Your task to perform on an android device: toggle data saver in the chrome app Image 0: 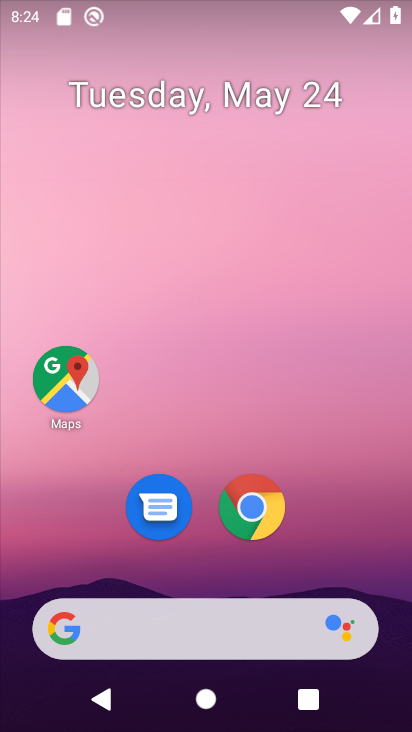
Step 0: click (240, 12)
Your task to perform on an android device: toggle data saver in the chrome app Image 1: 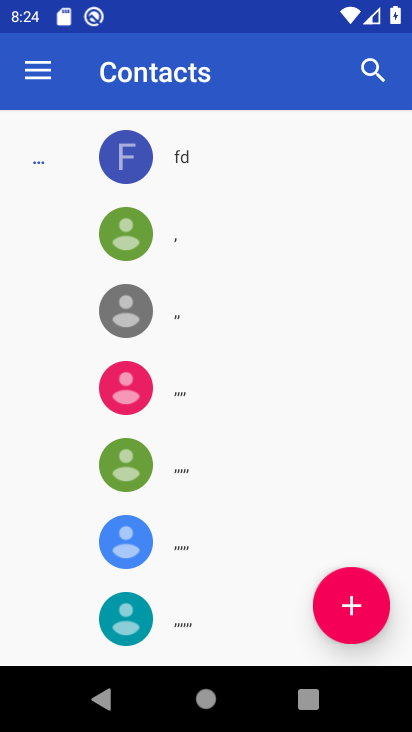
Step 1: drag from (226, 613) to (276, 131)
Your task to perform on an android device: toggle data saver in the chrome app Image 2: 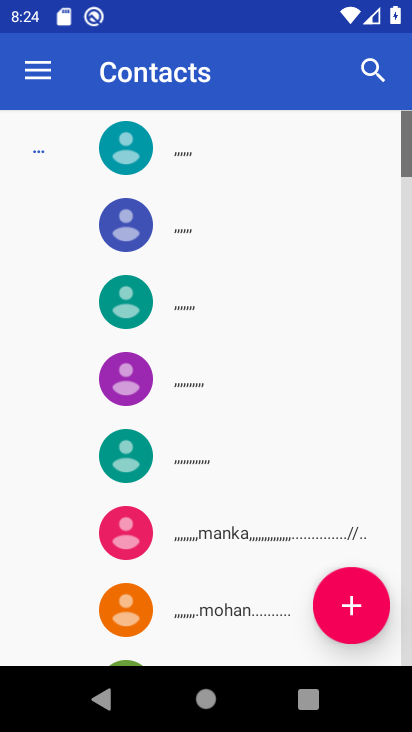
Step 2: drag from (238, 283) to (378, 663)
Your task to perform on an android device: toggle data saver in the chrome app Image 3: 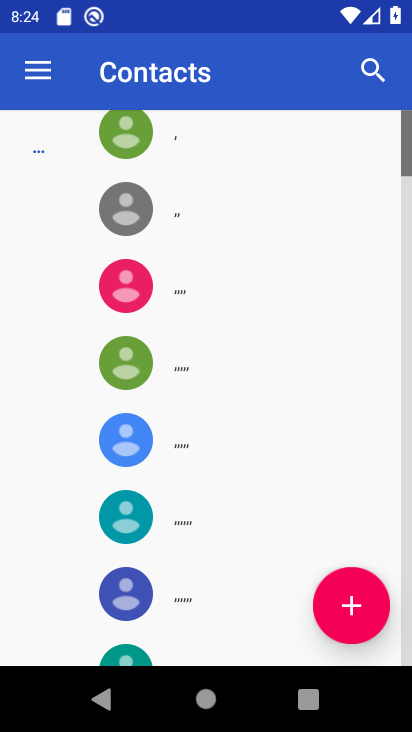
Step 3: press home button
Your task to perform on an android device: toggle data saver in the chrome app Image 4: 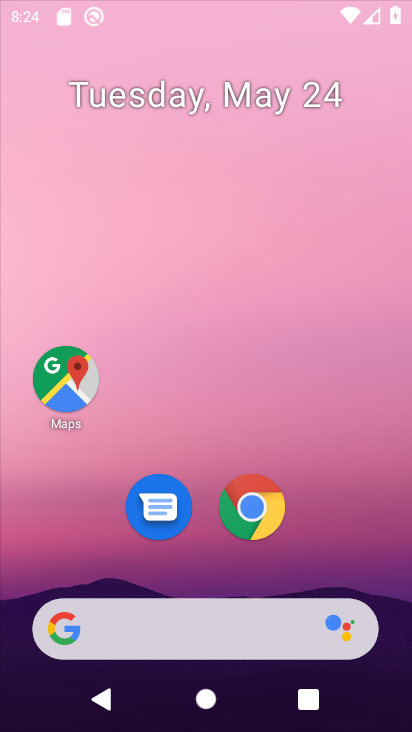
Step 4: drag from (162, 589) to (187, 202)
Your task to perform on an android device: toggle data saver in the chrome app Image 5: 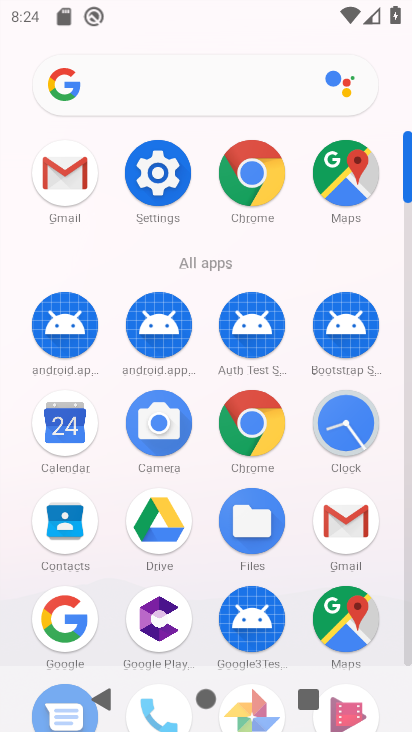
Step 5: click (252, 422)
Your task to perform on an android device: toggle data saver in the chrome app Image 6: 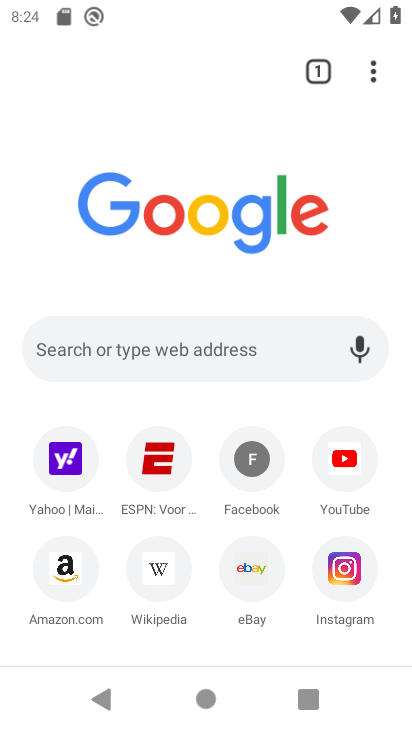
Step 6: drag from (188, 625) to (195, 248)
Your task to perform on an android device: toggle data saver in the chrome app Image 7: 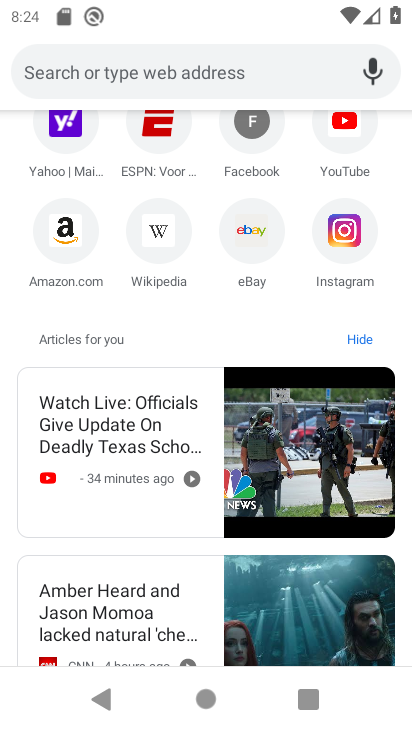
Step 7: drag from (209, 188) to (272, 580)
Your task to perform on an android device: toggle data saver in the chrome app Image 8: 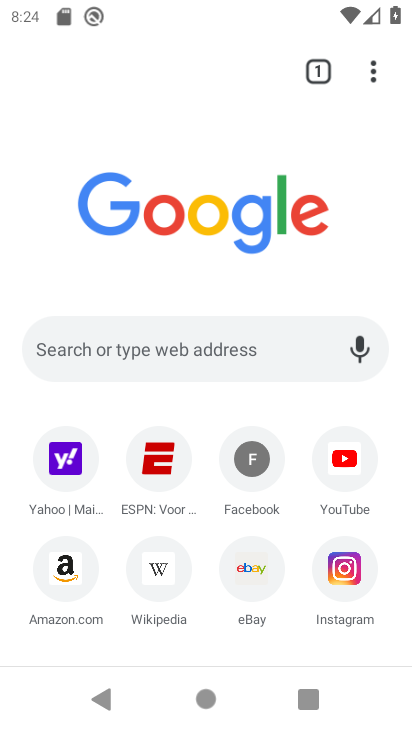
Step 8: drag from (202, 518) to (227, 282)
Your task to perform on an android device: toggle data saver in the chrome app Image 9: 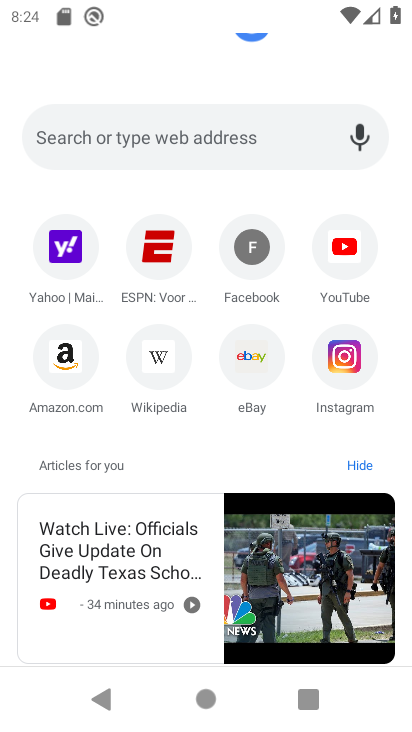
Step 9: drag from (199, 221) to (206, 505)
Your task to perform on an android device: toggle data saver in the chrome app Image 10: 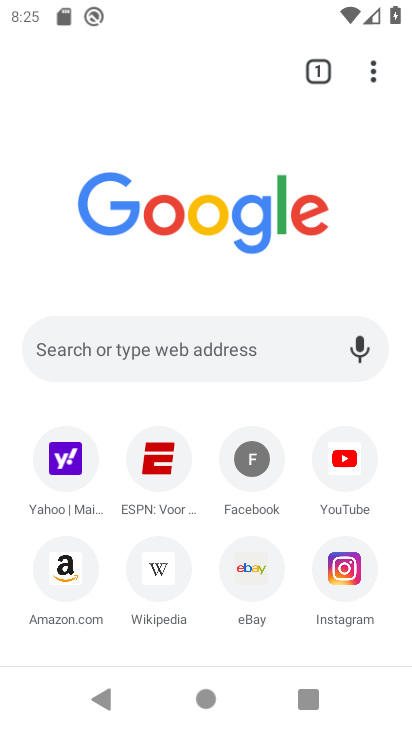
Step 10: drag from (208, 628) to (218, 185)
Your task to perform on an android device: toggle data saver in the chrome app Image 11: 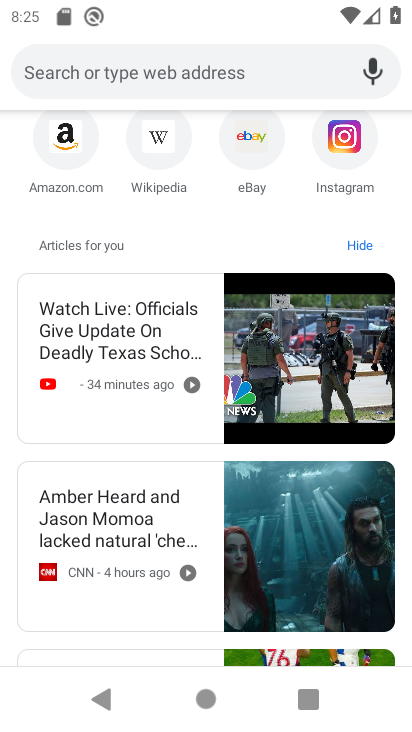
Step 11: drag from (289, 173) to (342, 653)
Your task to perform on an android device: toggle data saver in the chrome app Image 12: 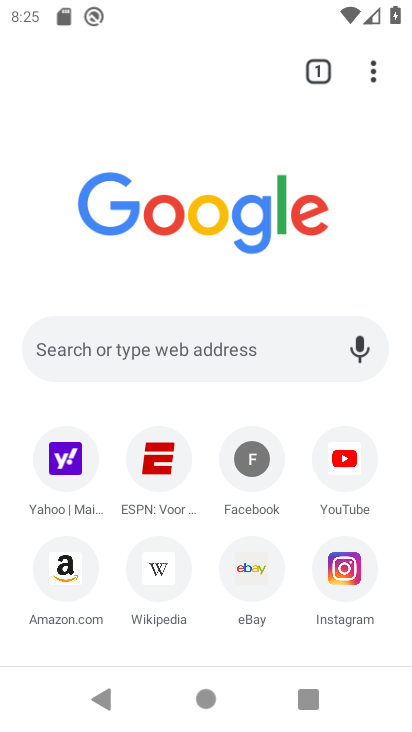
Step 12: click (373, 66)
Your task to perform on an android device: toggle data saver in the chrome app Image 13: 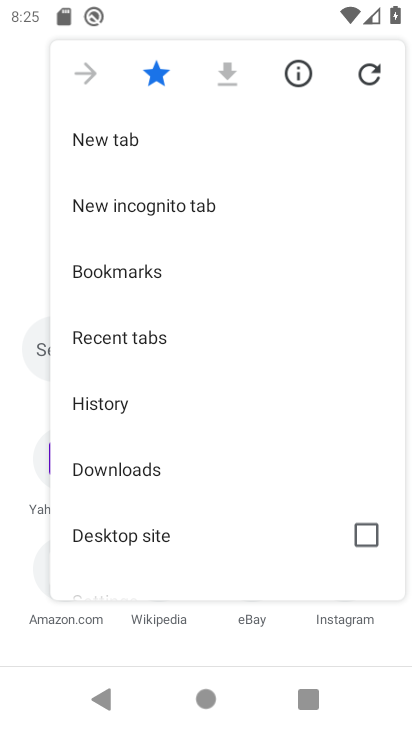
Step 13: drag from (147, 523) to (240, 49)
Your task to perform on an android device: toggle data saver in the chrome app Image 14: 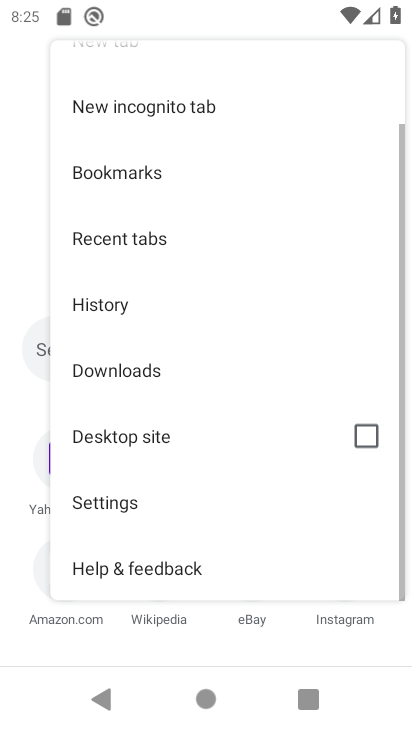
Step 14: click (128, 504)
Your task to perform on an android device: toggle data saver in the chrome app Image 15: 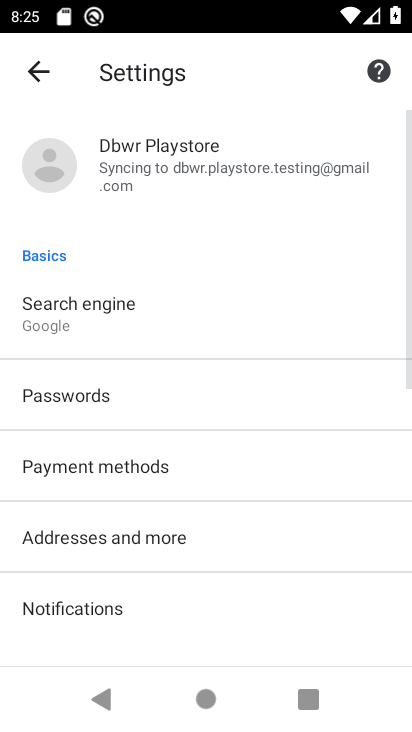
Step 15: drag from (200, 537) to (218, 200)
Your task to perform on an android device: toggle data saver in the chrome app Image 16: 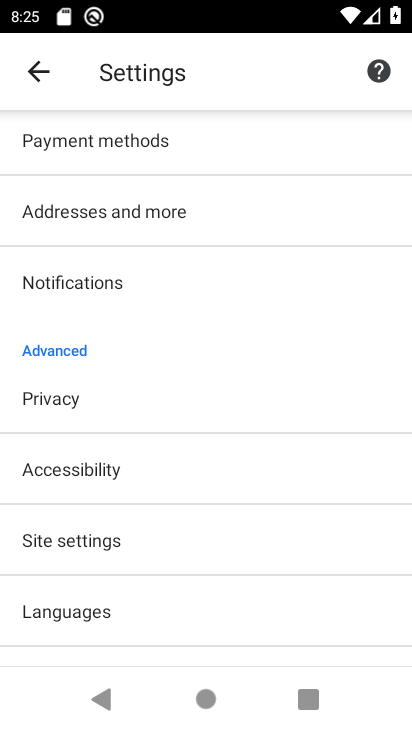
Step 16: drag from (148, 607) to (240, 187)
Your task to perform on an android device: toggle data saver in the chrome app Image 17: 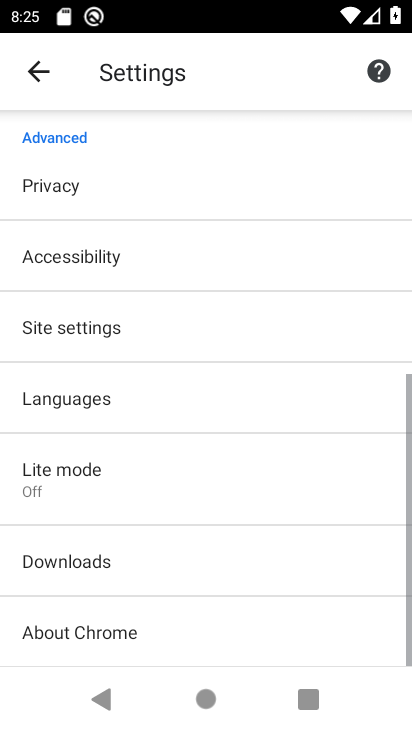
Step 17: click (120, 493)
Your task to perform on an android device: toggle data saver in the chrome app Image 18: 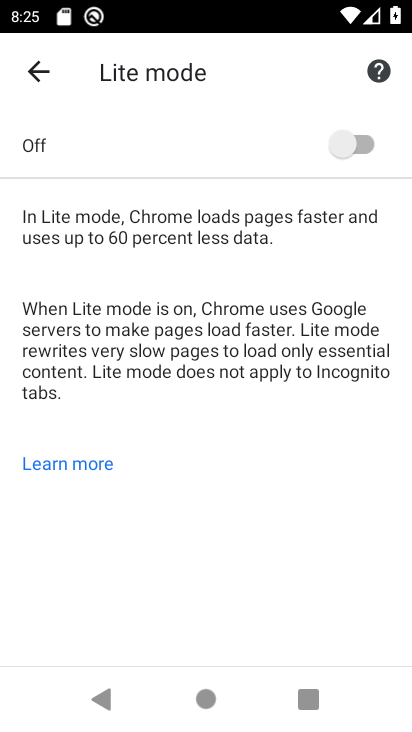
Step 18: click (346, 140)
Your task to perform on an android device: toggle data saver in the chrome app Image 19: 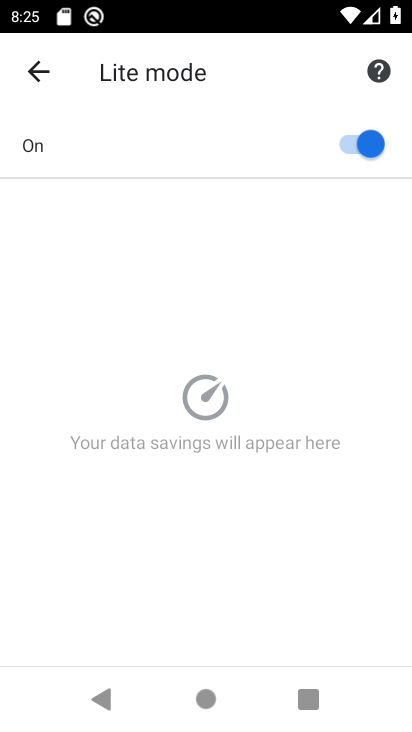
Step 19: task complete